Your task to perform on an android device: turn on the 24-hour format for clock Image 0: 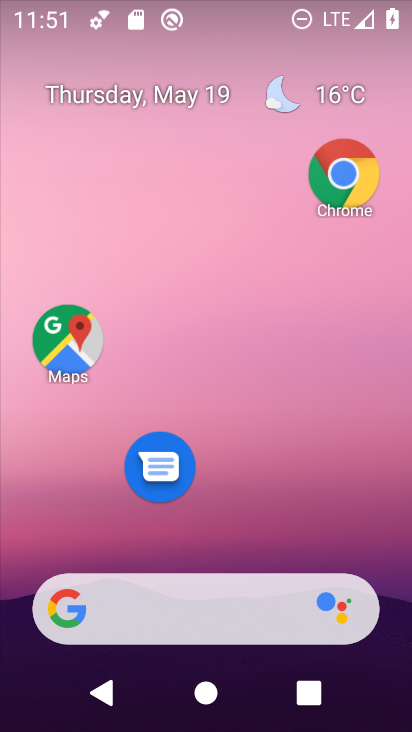
Step 0: drag from (199, 485) to (238, 208)
Your task to perform on an android device: turn on the 24-hour format for clock Image 1: 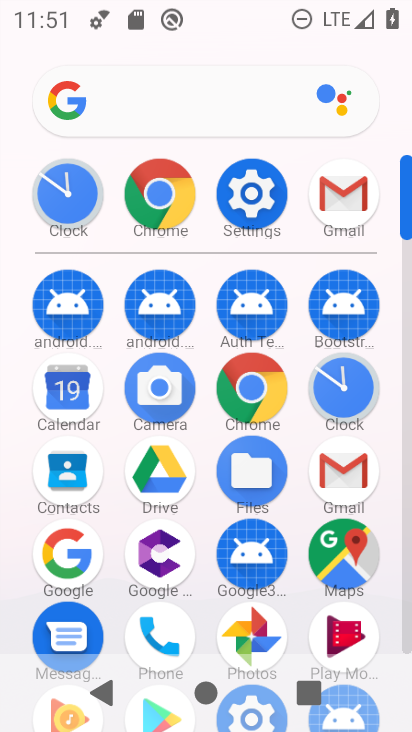
Step 1: click (339, 388)
Your task to perform on an android device: turn on the 24-hour format for clock Image 2: 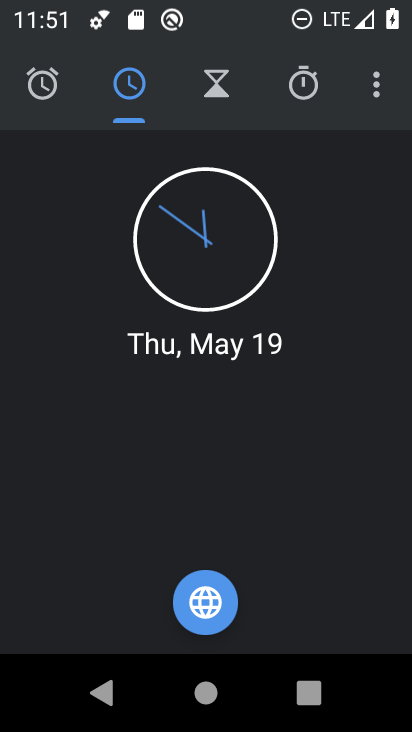
Step 2: click (358, 87)
Your task to perform on an android device: turn on the 24-hour format for clock Image 3: 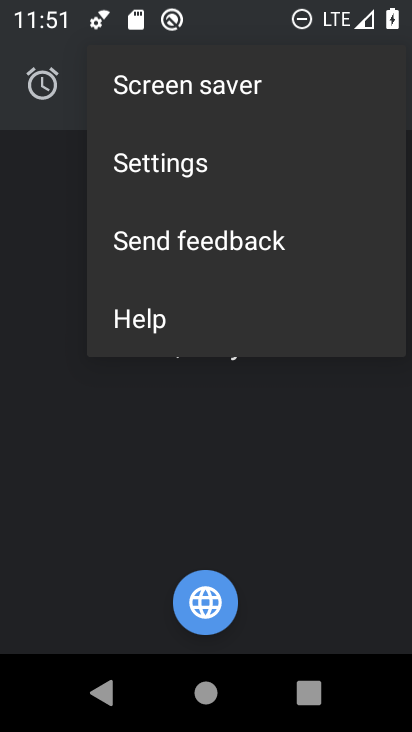
Step 3: click (178, 147)
Your task to perform on an android device: turn on the 24-hour format for clock Image 4: 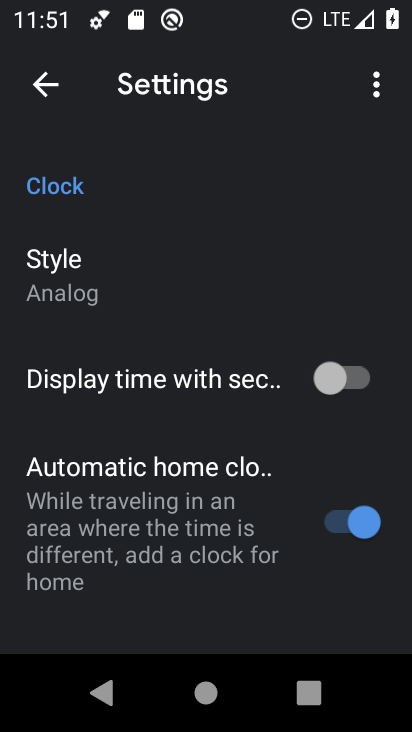
Step 4: drag from (190, 513) to (230, 386)
Your task to perform on an android device: turn on the 24-hour format for clock Image 5: 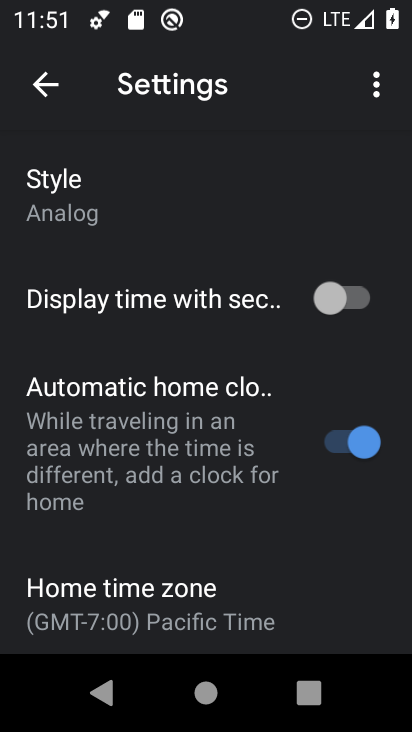
Step 5: drag from (175, 533) to (226, 288)
Your task to perform on an android device: turn on the 24-hour format for clock Image 6: 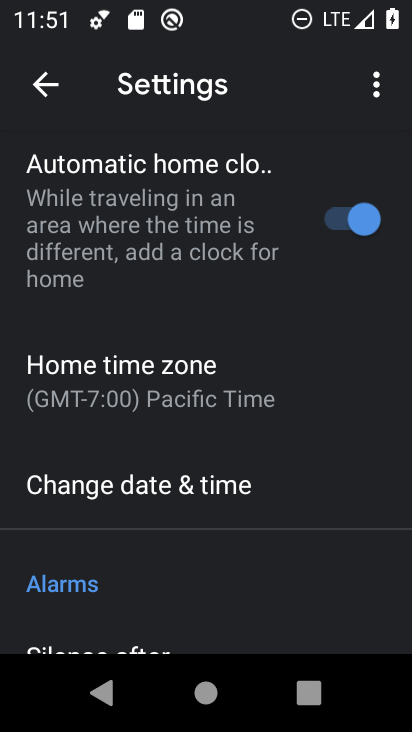
Step 6: click (184, 478)
Your task to perform on an android device: turn on the 24-hour format for clock Image 7: 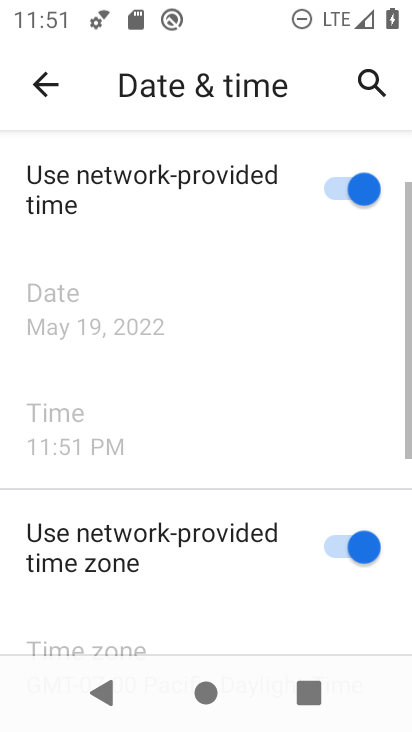
Step 7: click (284, 622)
Your task to perform on an android device: turn on the 24-hour format for clock Image 8: 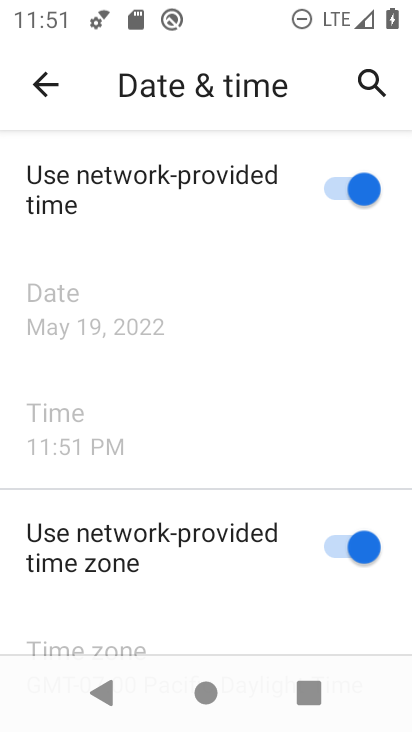
Step 8: drag from (297, 556) to (330, 353)
Your task to perform on an android device: turn on the 24-hour format for clock Image 9: 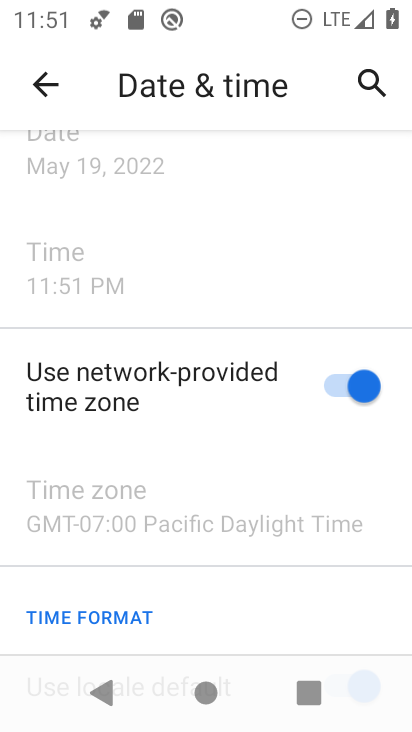
Step 9: drag from (236, 465) to (275, 238)
Your task to perform on an android device: turn on the 24-hour format for clock Image 10: 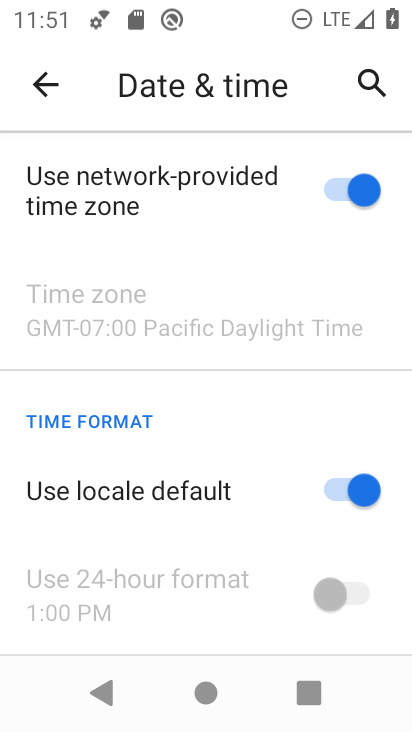
Step 10: click (356, 471)
Your task to perform on an android device: turn on the 24-hour format for clock Image 11: 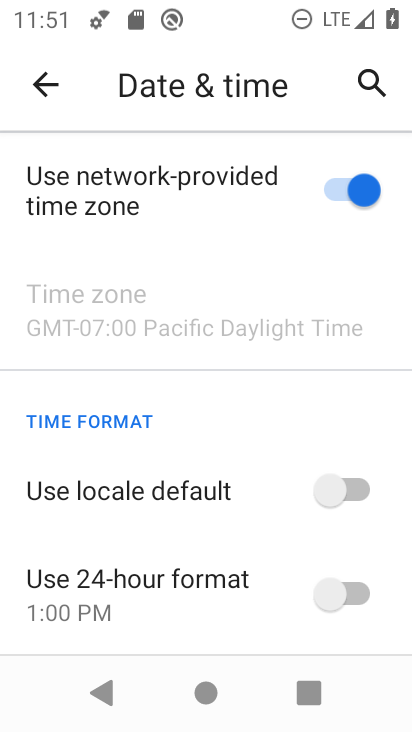
Step 11: click (378, 583)
Your task to perform on an android device: turn on the 24-hour format for clock Image 12: 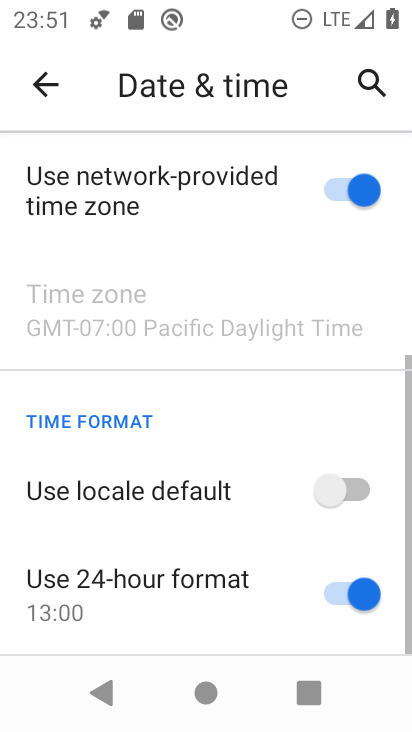
Step 12: task complete